Your task to perform on an android device: Open location settings Image 0: 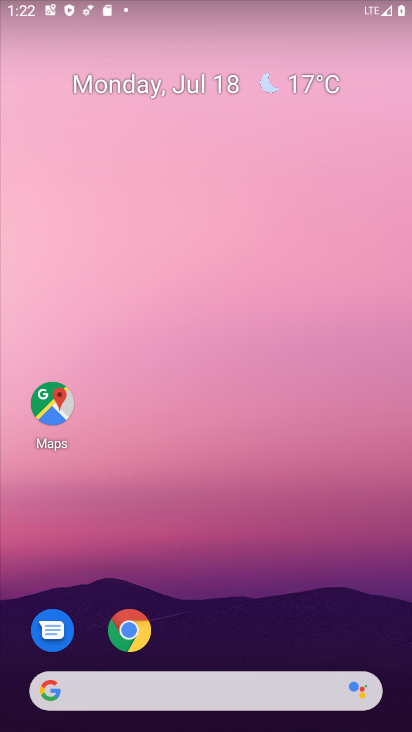
Step 0: drag from (289, 586) to (350, 77)
Your task to perform on an android device: Open location settings Image 1: 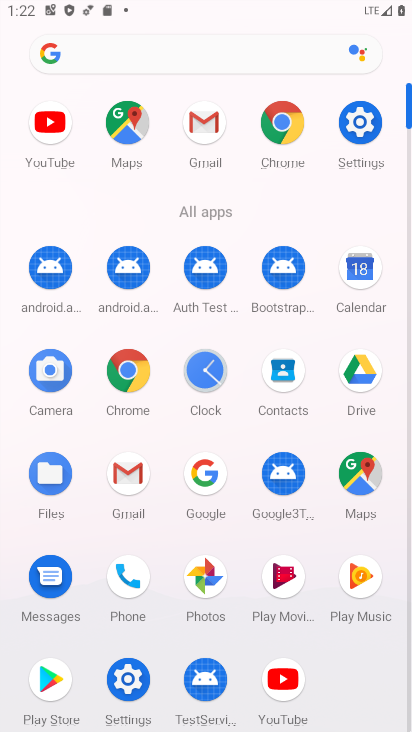
Step 1: click (362, 123)
Your task to perform on an android device: Open location settings Image 2: 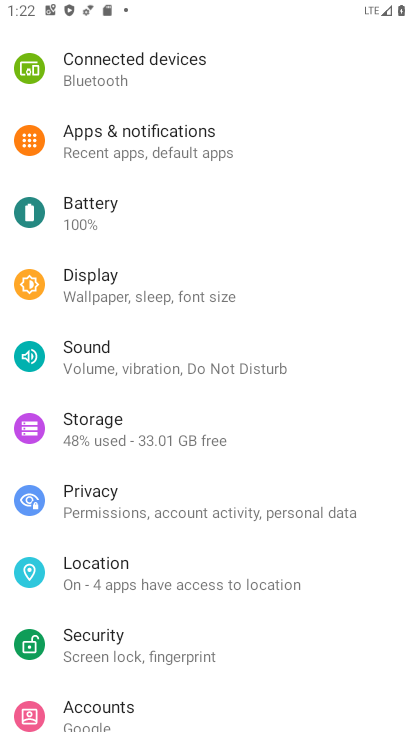
Step 2: click (149, 575)
Your task to perform on an android device: Open location settings Image 3: 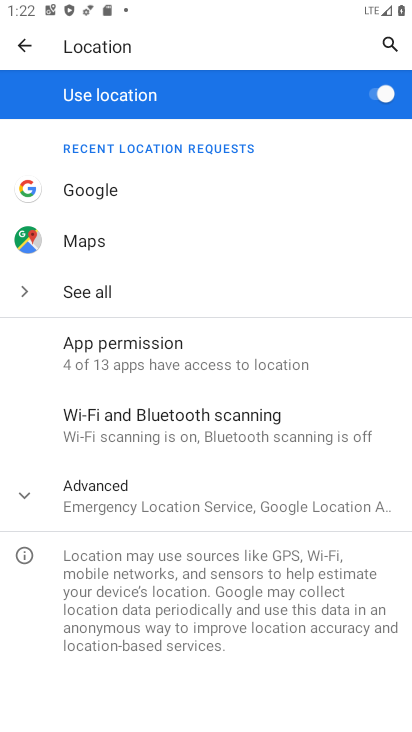
Step 3: task complete